Your task to perform on an android device: Open Yahoo.com Image 0: 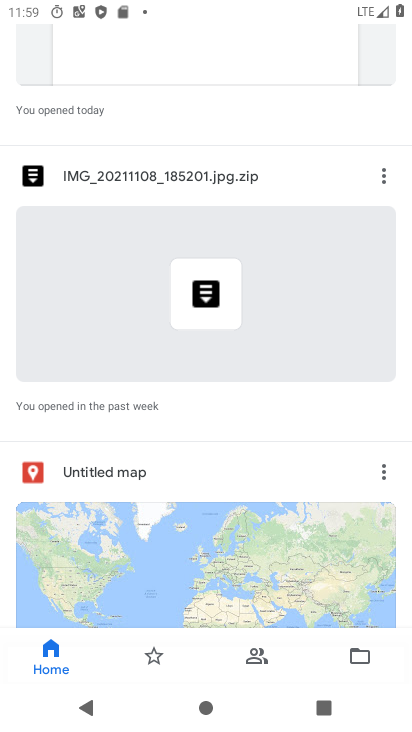
Step 0: press home button
Your task to perform on an android device: Open Yahoo.com Image 1: 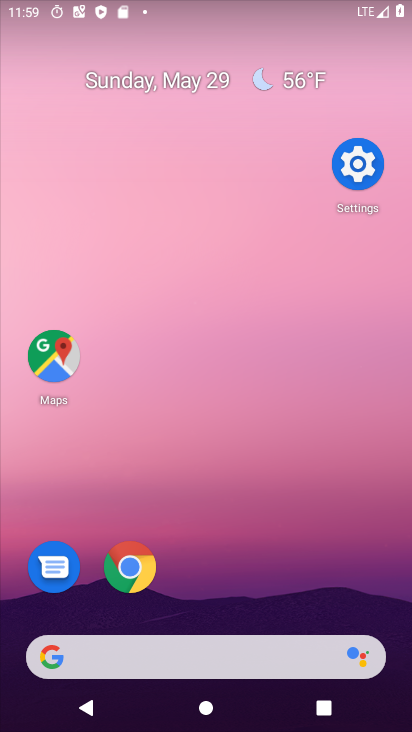
Step 1: drag from (371, 544) to (367, 155)
Your task to perform on an android device: Open Yahoo.com Image 2: 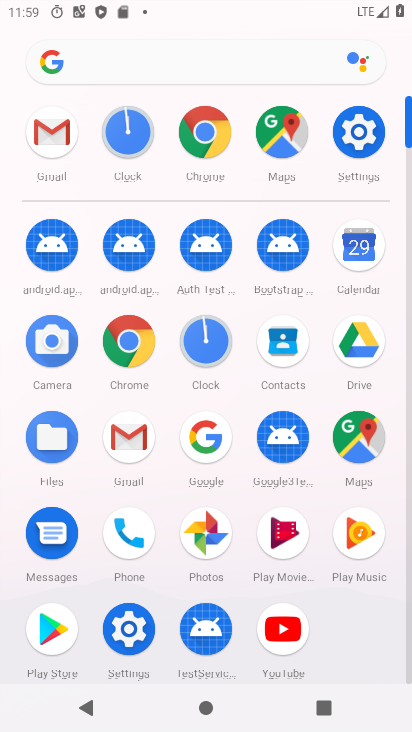
Step 2: click (106, 349)
Your task to perform on an android device: Open Yahoo.com Image 3: 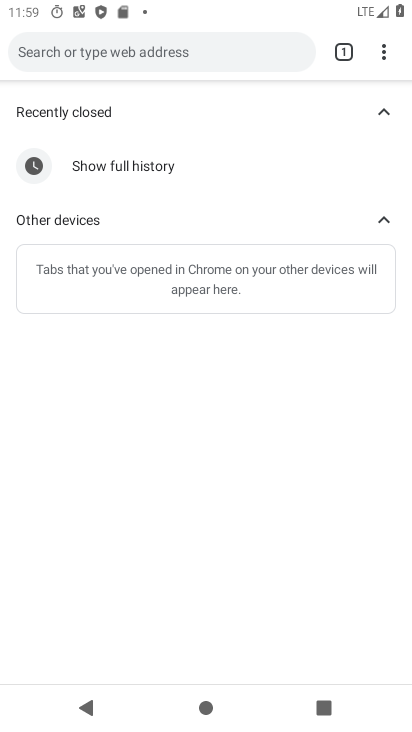
Step 3: click (231, 64)
Your task to perform on an android device: Open Yahoo.com Image 4: 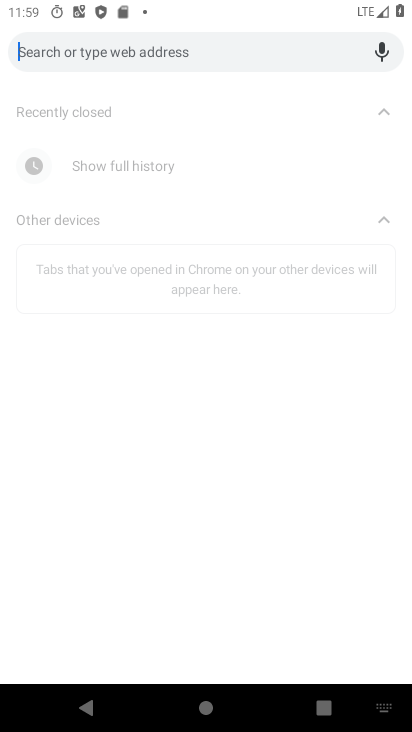
Step 4: type "yahoo.com"
Your task to perform on an android device: Open Yahoo.com Image 5: 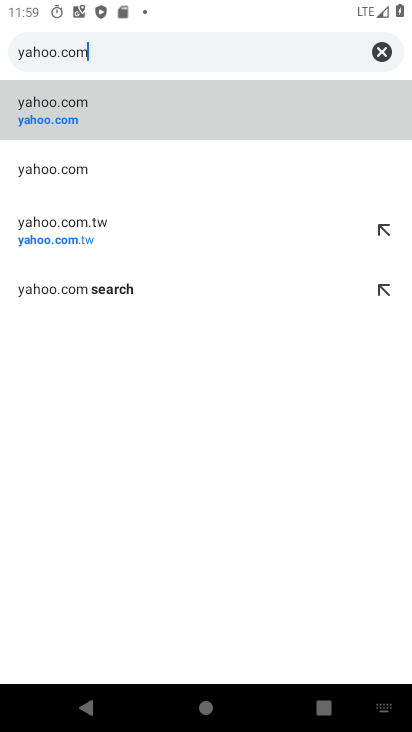
Step 5: click (97, 112)
Your task to perform on an android device: Open Yahoo.com Image 6: 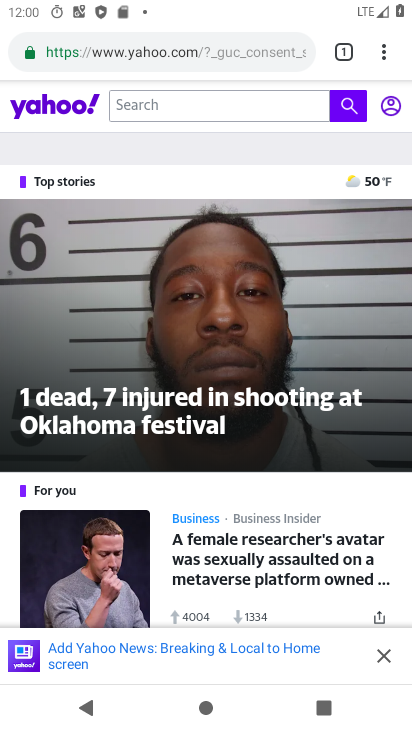
Step 6: task complete